Your task to perform on an android device: Go to notification settings Image 0: 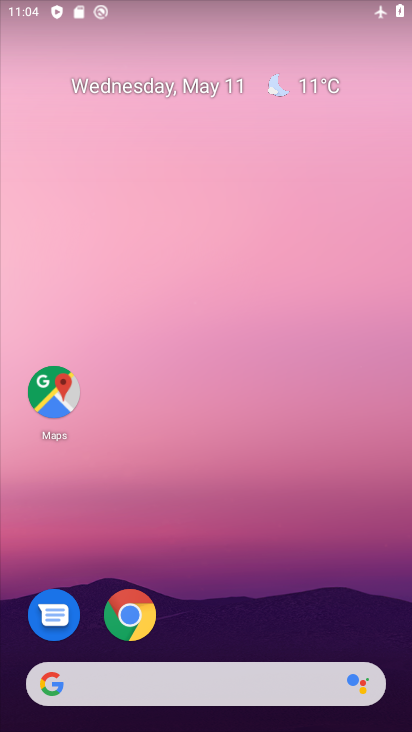
Step 0: drag from (260, 673) to (212, 19)
Your task to perform on an android device: Go to notification settings Image 1: 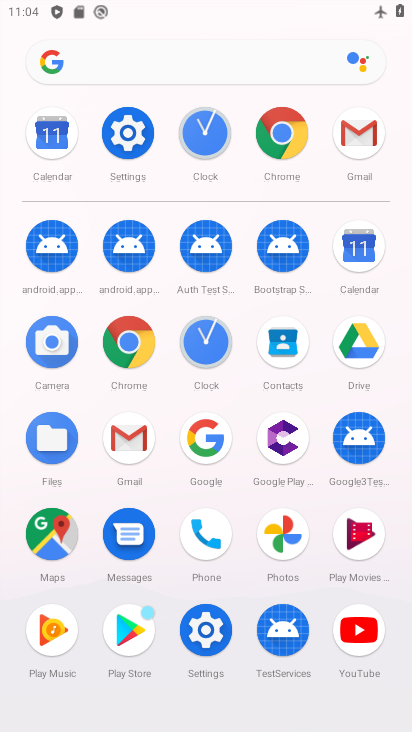
Step 1: click (121, 122)
Your task to perform on an android device: Go to notification settings Image 2: 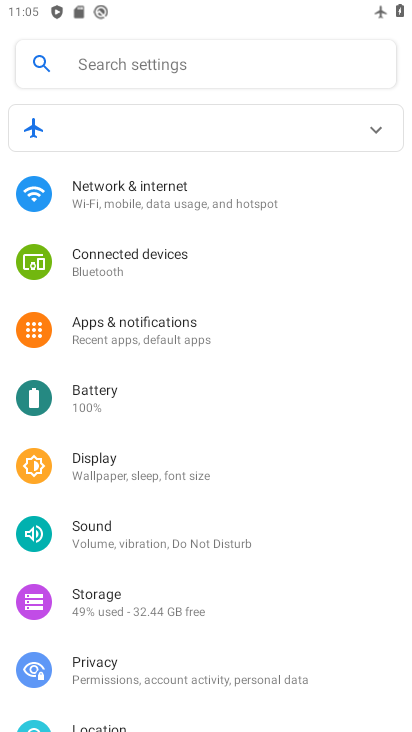
Step 2: drag from (262, 596) to (249, 370)
Your task to perform on an android device: Go to notification settings Image 3: 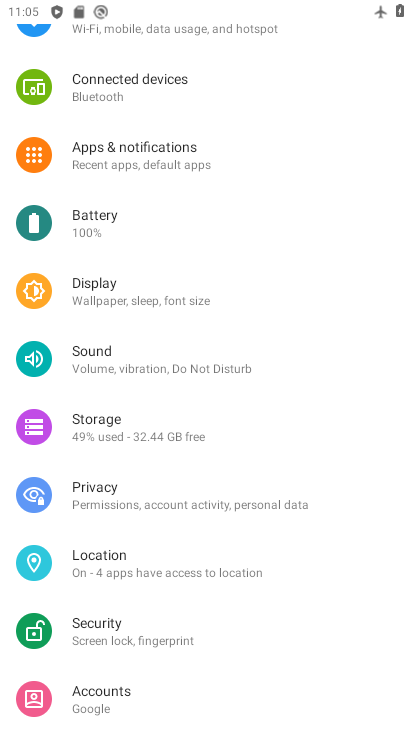
Step 3: click (145, 163)
Your task to perform on an android device: Go to notification settings Image 4: 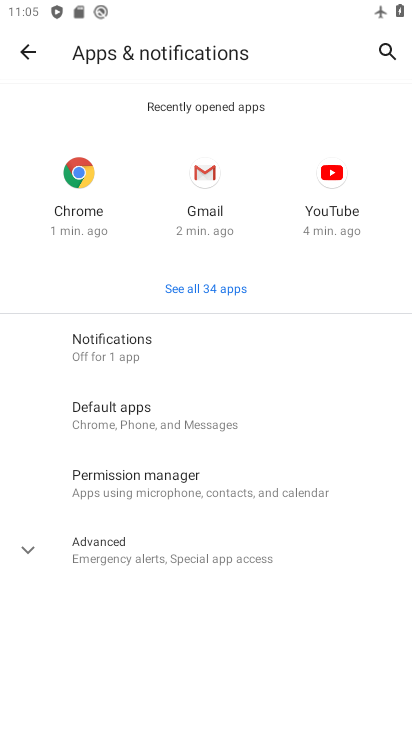
Step 4: click (152, 352)
Your task to perform on an android device: Go to notification settings Image 5: 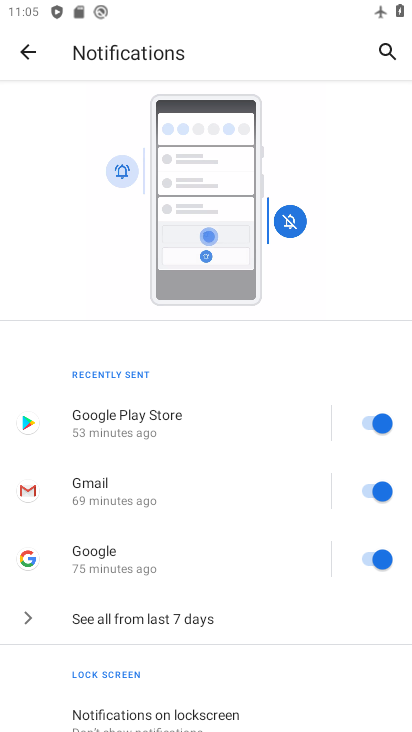
Step 5: task complete